Your task to perform on an android device: open app "Google Chat" (install if not already installed) Image 0: 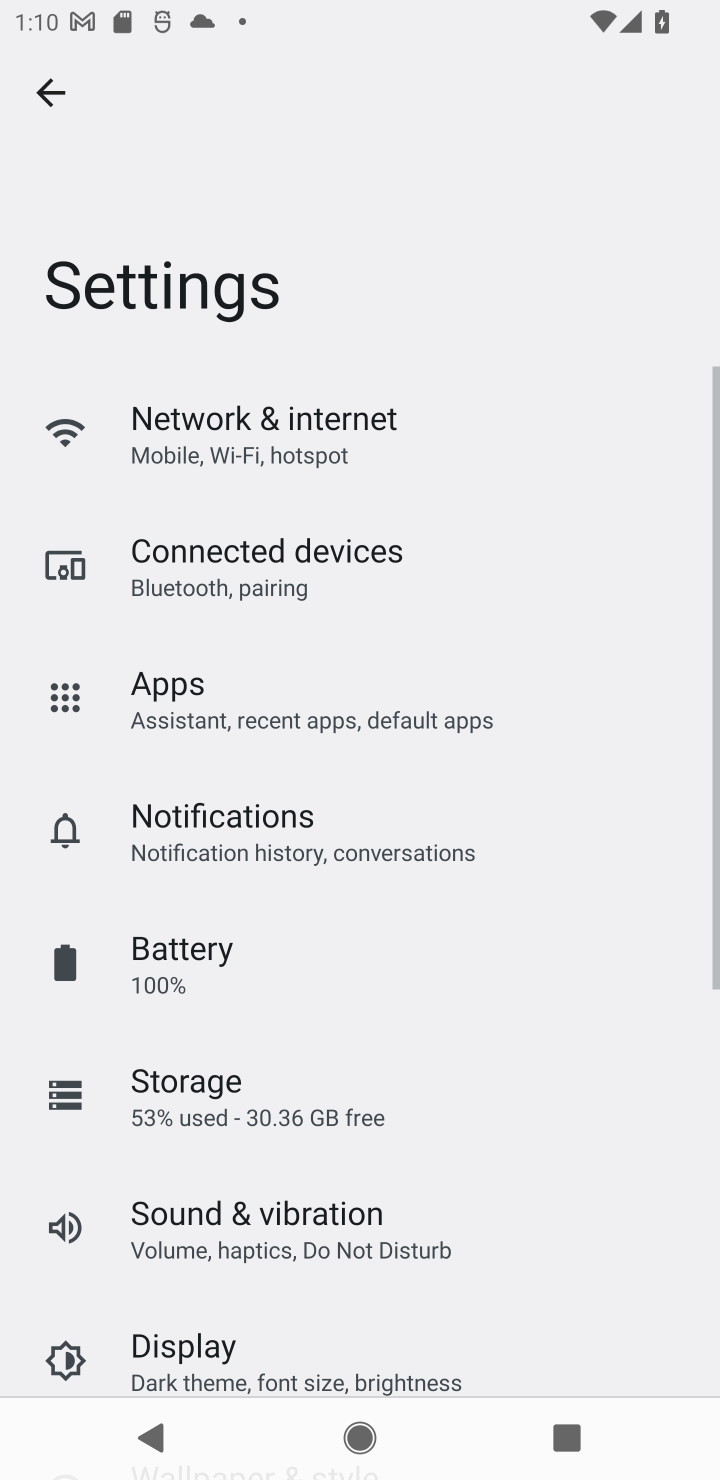
Step 0: press home button
Your task to perform on an android device: open app "Google Chat" (install if not already installed) Image 1: 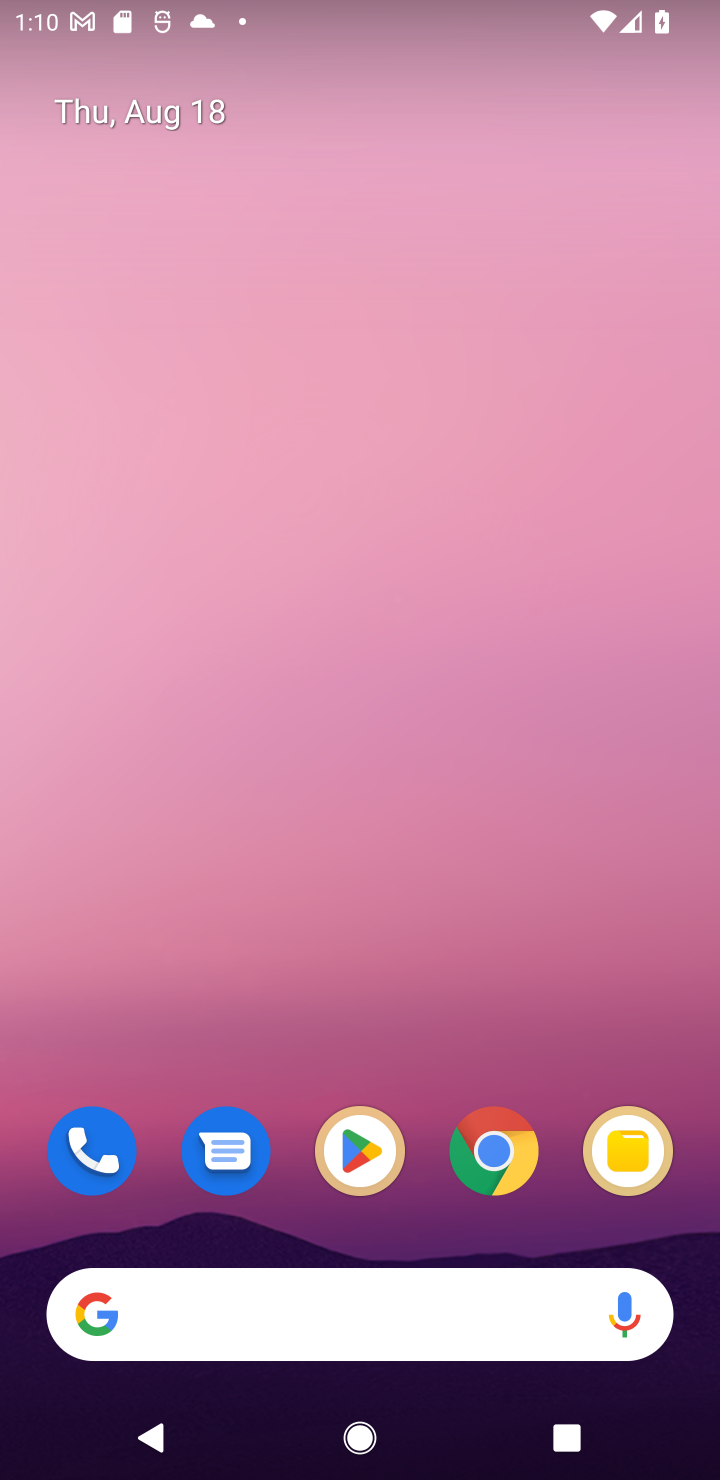
Step 1: click (362, 1149)
Your task to perform on an android device: open app "Google Chat" (install if not already installed) Image 2: 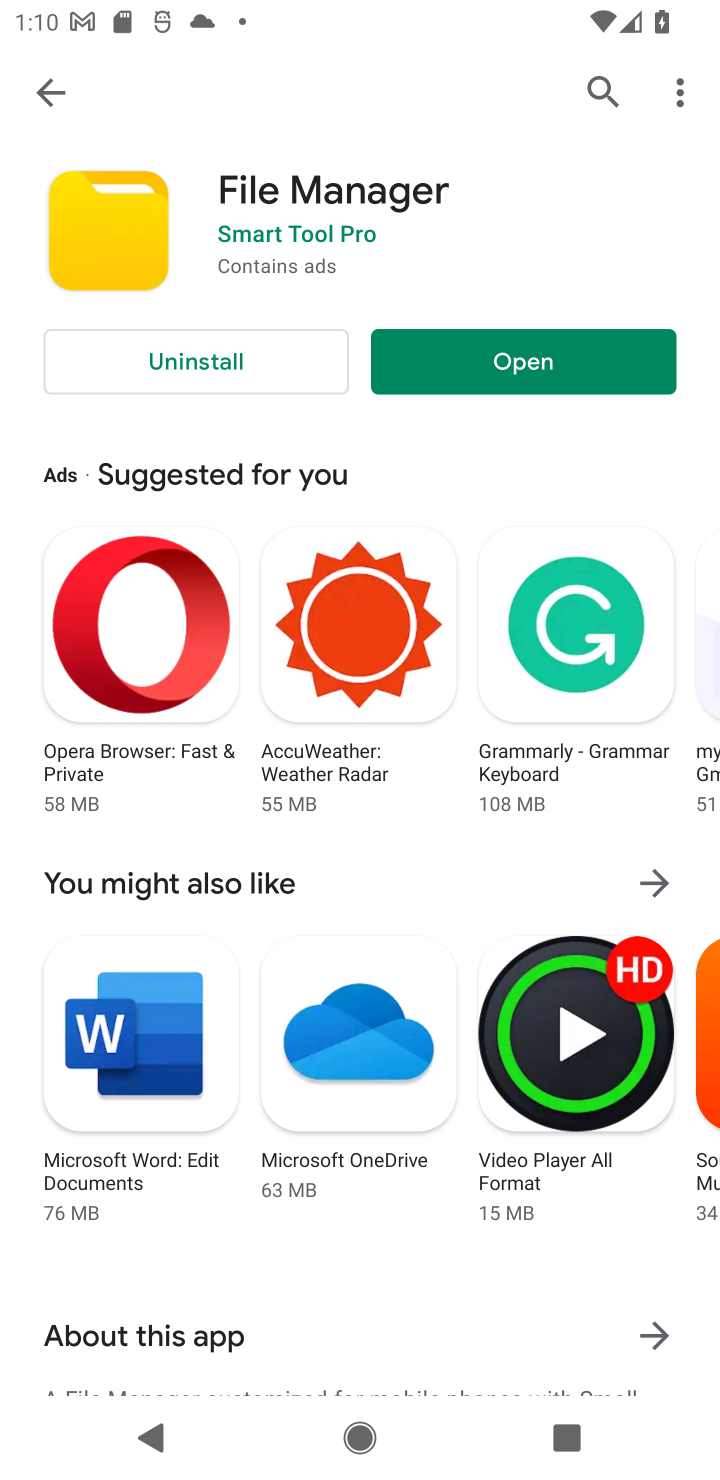
Step 2: click (47, 89)
Your task to perform on an android device: open app "Google Chat" (install if not already installed) Image 3: 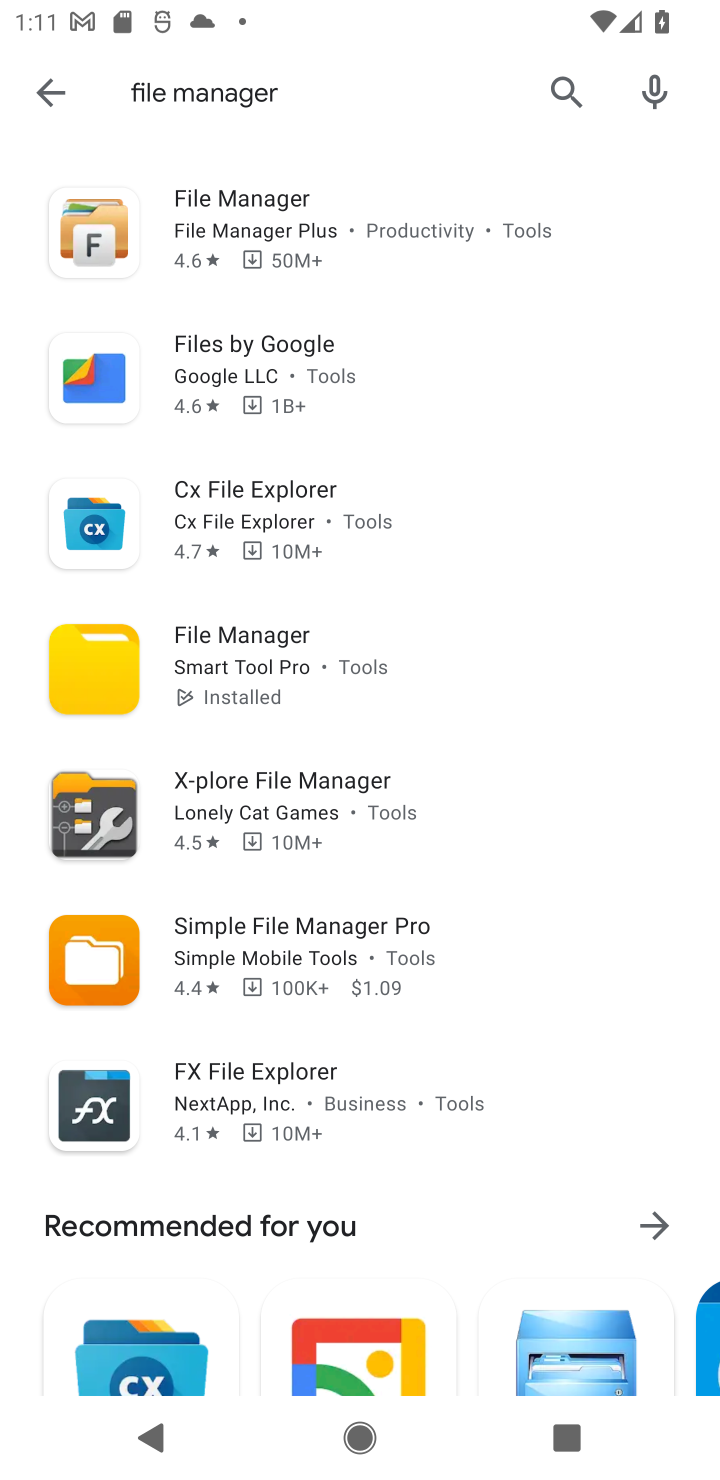
Step 3: click (53, 89)
Your task to perform on an android device: open app "Google Chat" (install if not already installed) Image 4: 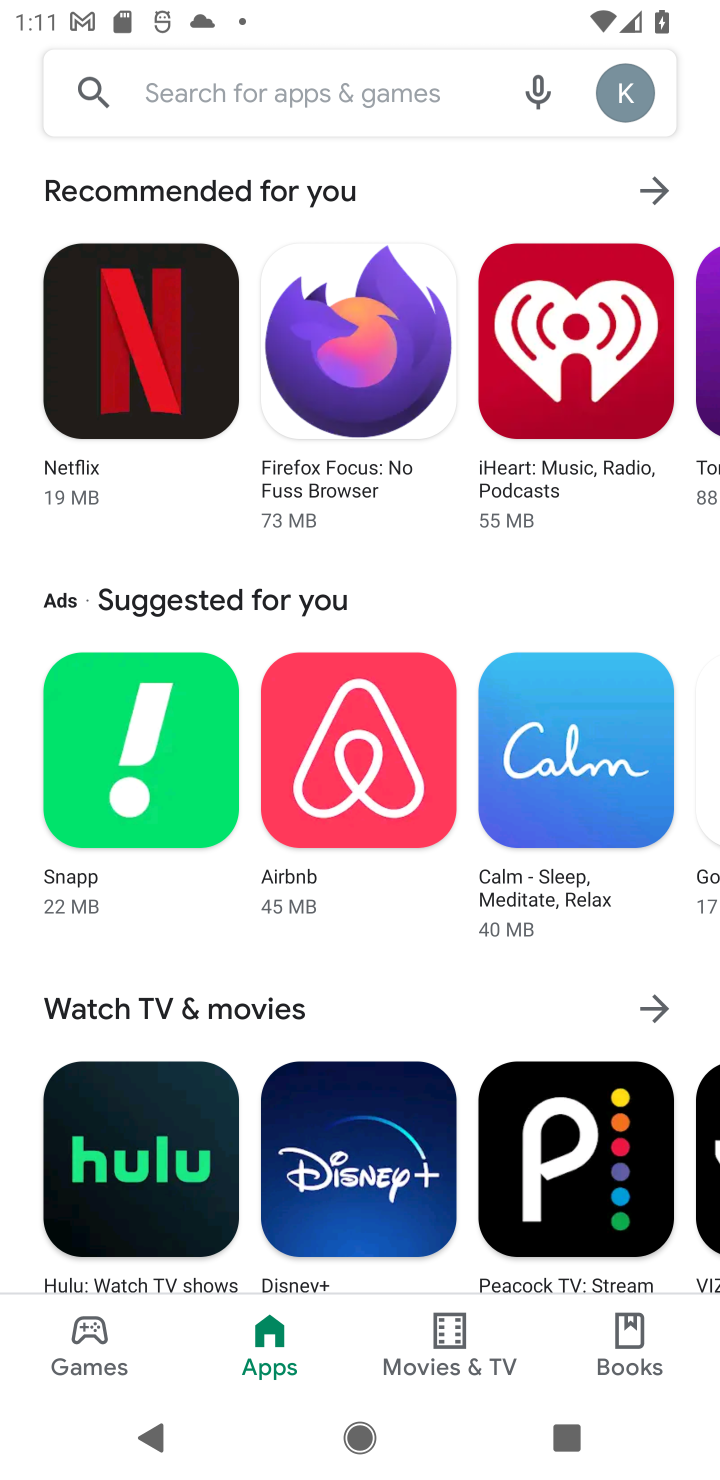
Step 4: click (286, 89)
Your task to perform on an android device: open app "Google Chat" (install if not already installed) Image 5: 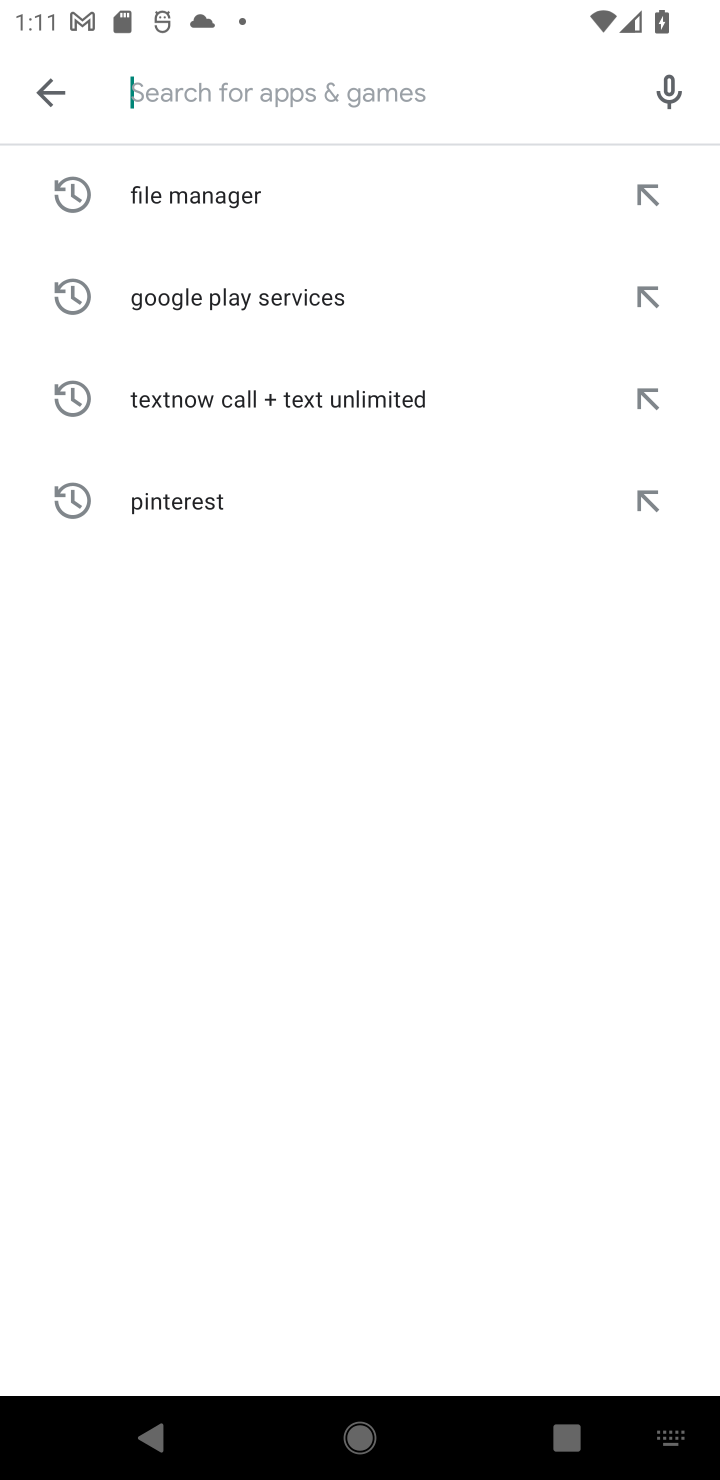
Step 5: type "Google Chat"
Your task to perform on an android device: open app "Google Chat" (install if not already installed) Image 6: 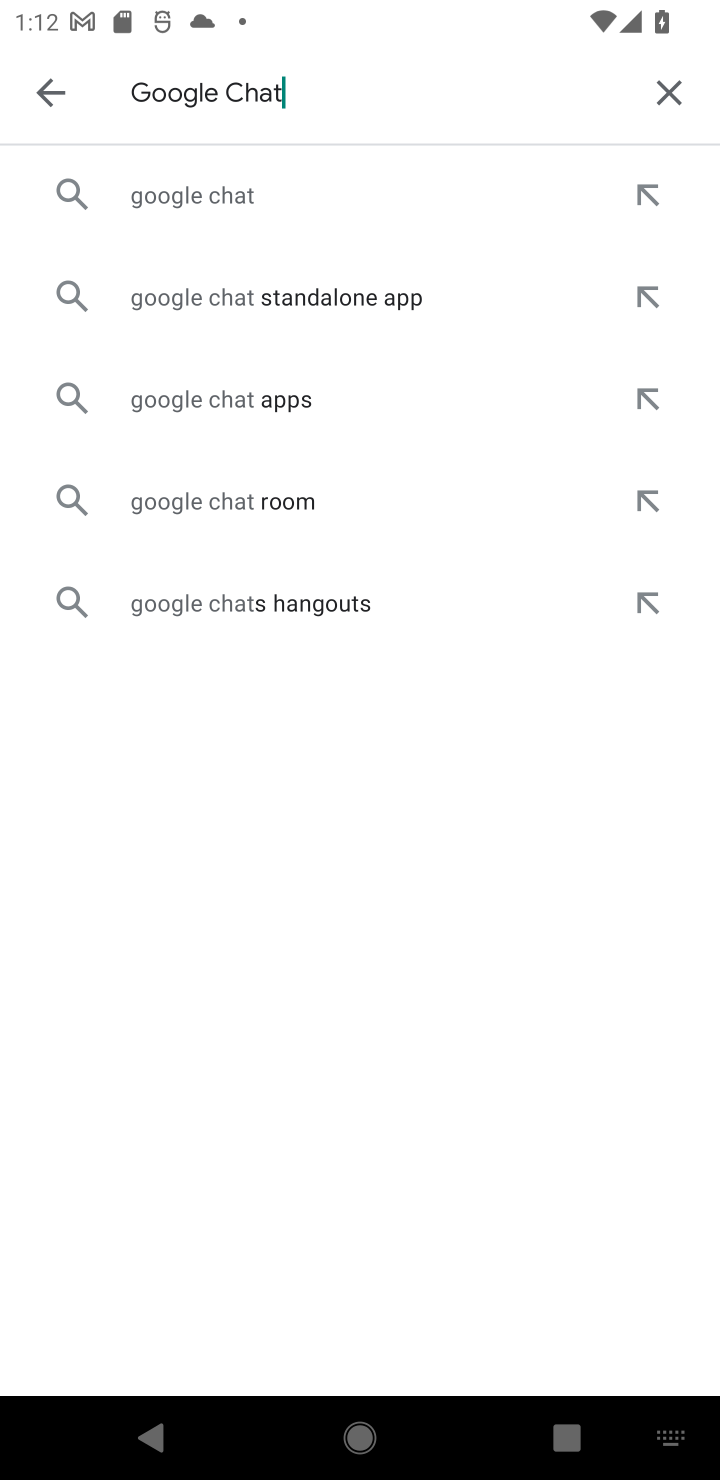
Step 6: click (209, 178)
Your task to perform on an android device: open app "Google Chat" (install if not already installed) Image 7: 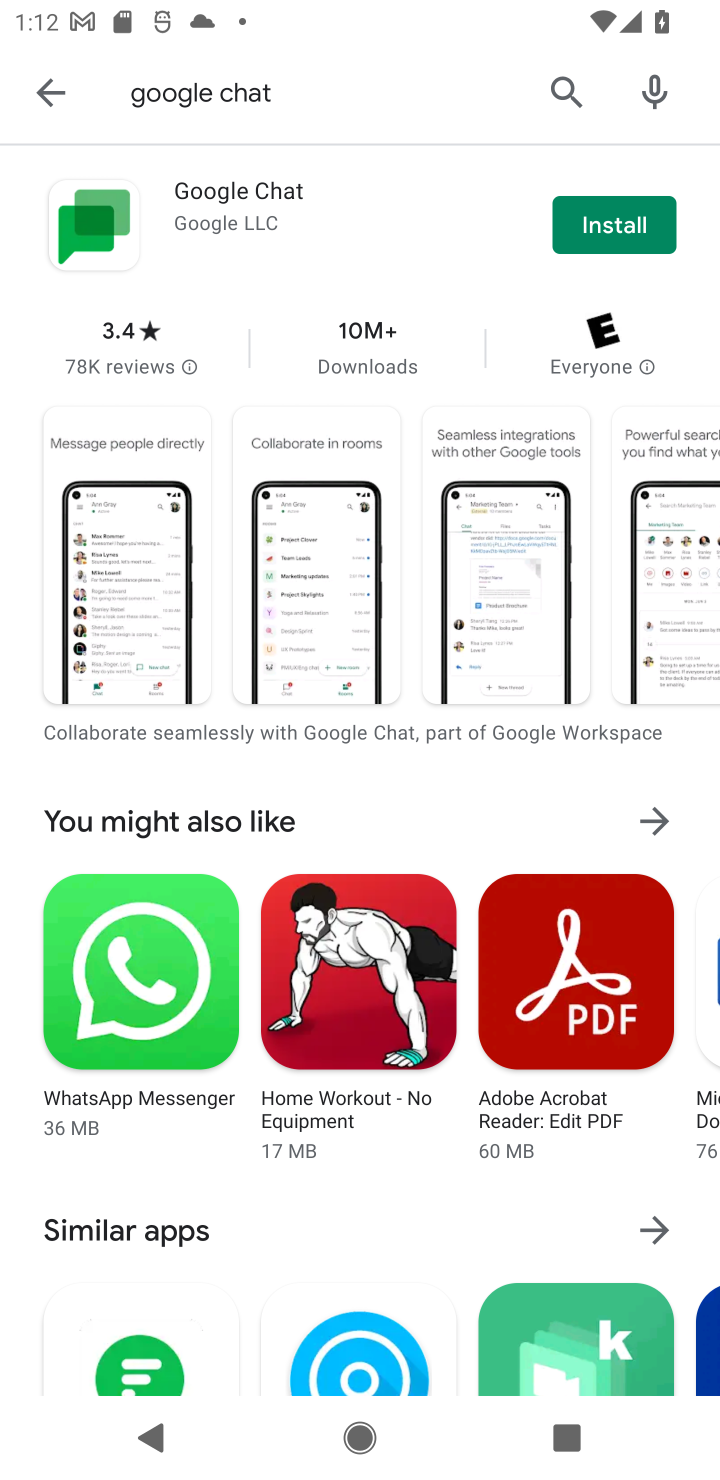
Step 7: click (634, 223)
Your task to perform on an android device: open app "Google Chat" (install if not already installed) Image 8: 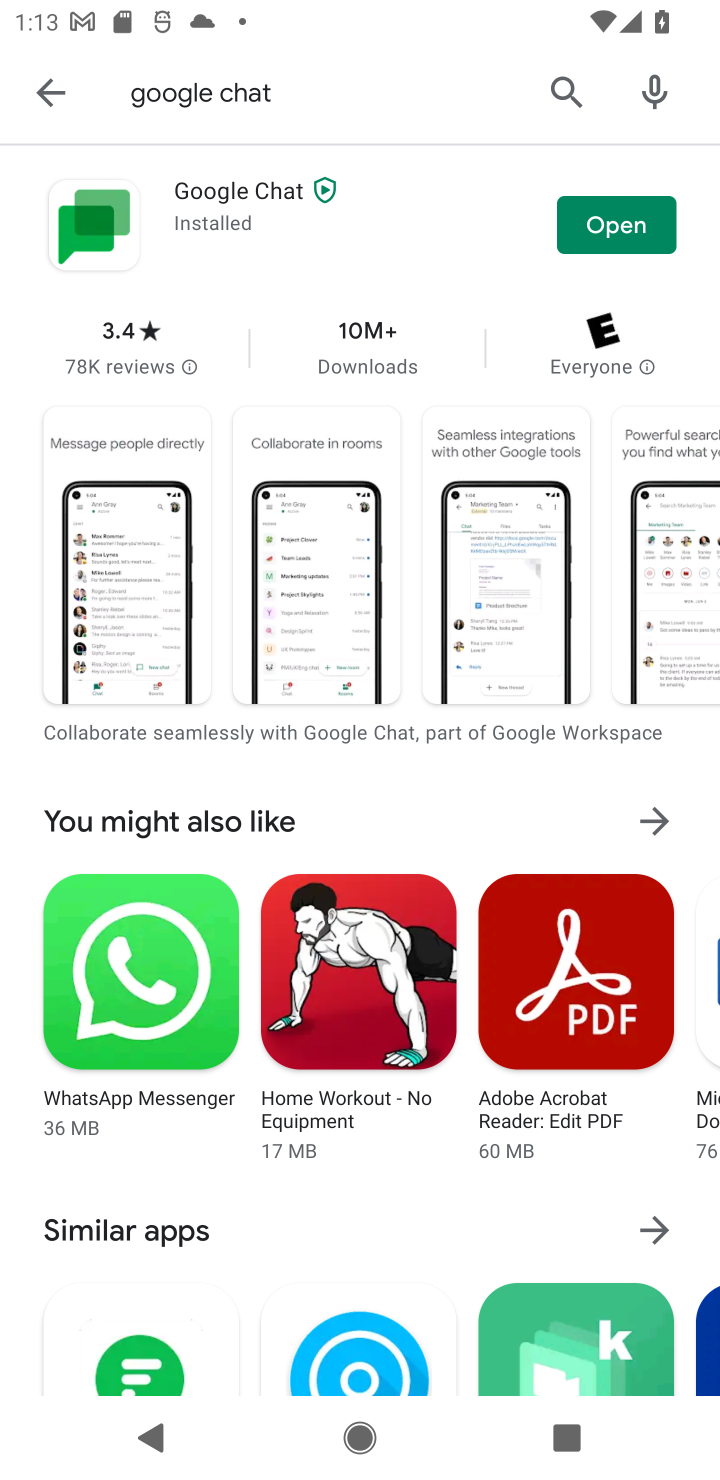
Step 8: click (634, 223)
Your task to perform on an android device: open app "Google Chat" (install if not already installed) Image 9: 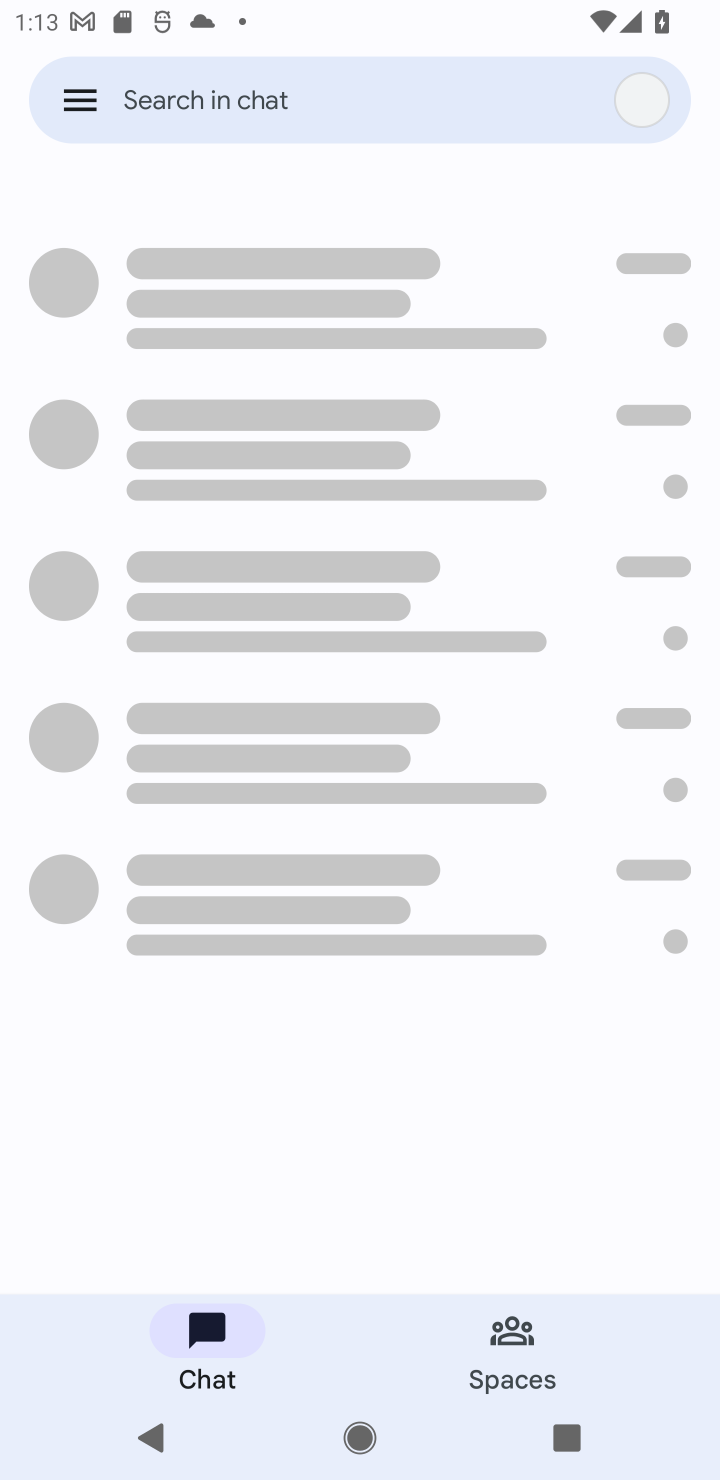
Step 9: task complete